Your task to perform on an android device: turn notification dots off Image 0: 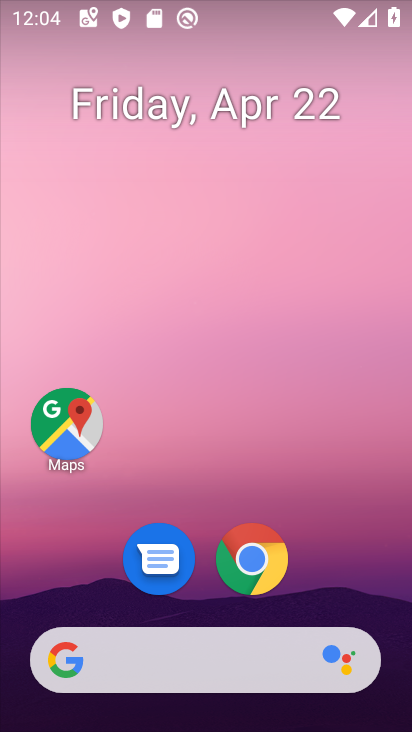
Step 0: drag from (375, 341) to (380, 166)
Your task to perform on an android device: turn notification dots off Image 1: 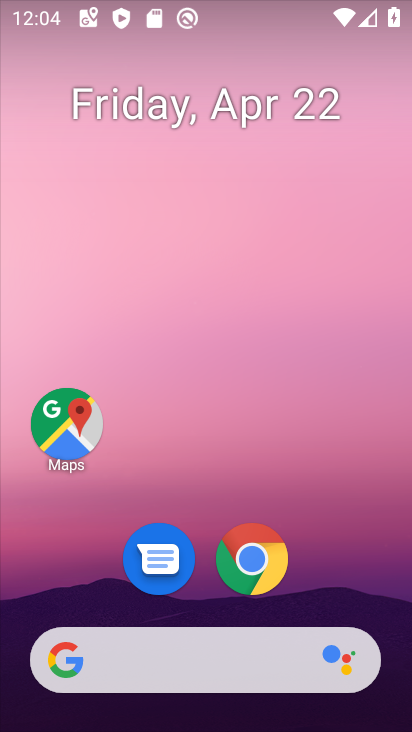
Step 1: drag from (311, 501) to (292, 185)
Your task to perform on an android device: turn notification dots off Image 2: 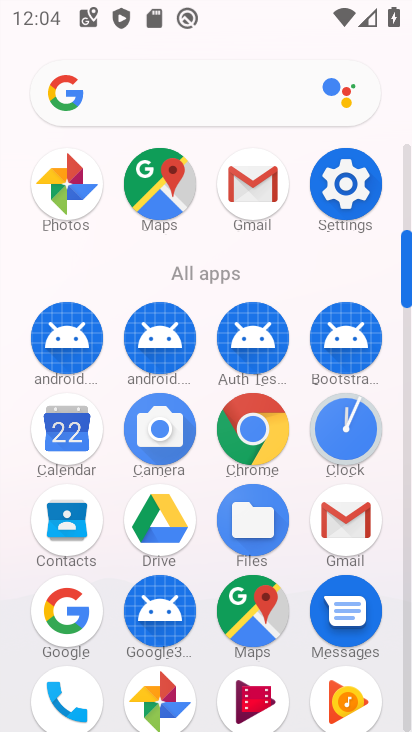
Step 2: click (347, 181)
Your task to perform on an android device: turn notification dots off Image 3: 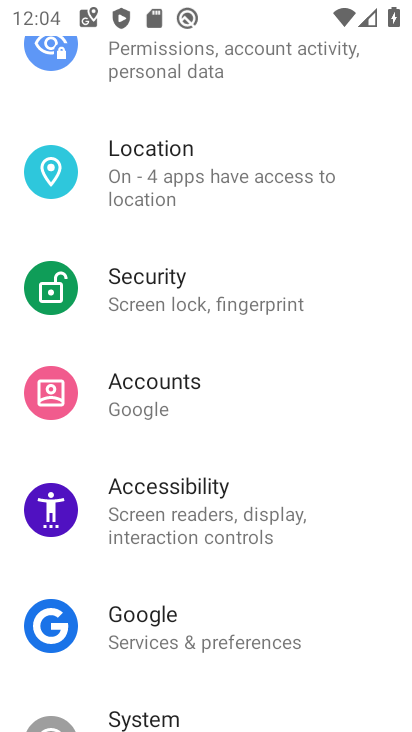
Step 3: drag from (243, 346) to (187, 565)
Your task to perform on an android device: turn notification dots off Image 4: 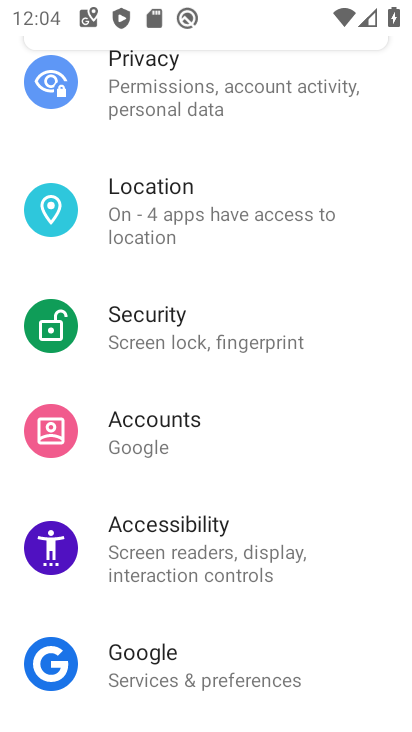
Step 4: drag from (200, 574) to (248, 330)
Your task to perform on an android device: turn notification dots off Image 5: 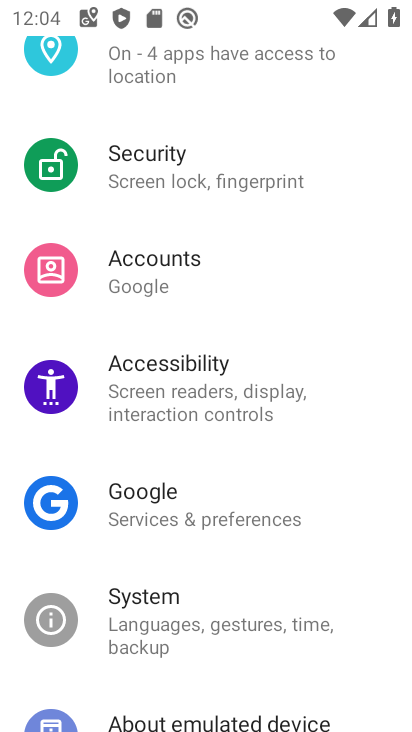
Step 5: drag from (233, 535) to (174, 275)
Your task to perform on an android device: turn notification dots off Image 6: 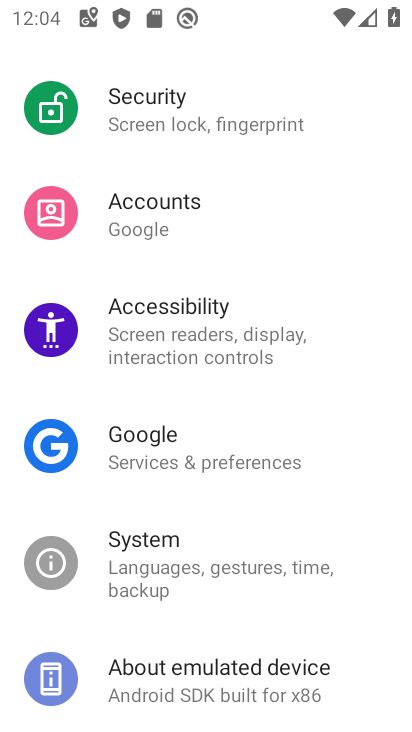
Step 6: drag from (164, 277) to (78, 506)
Your task to perform on an android device: turn notification dots off Image 7: 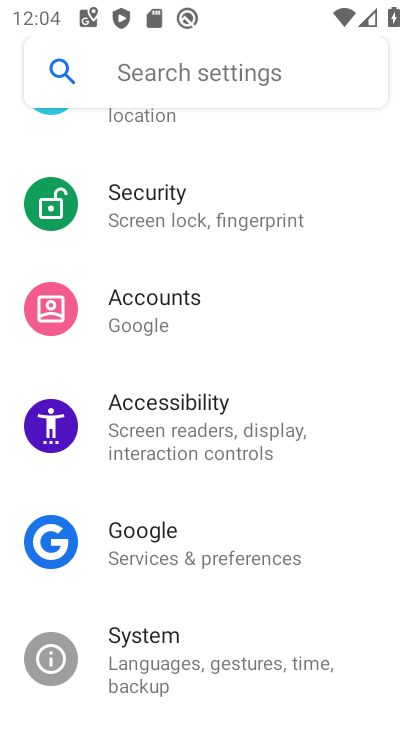
Step 7: drag from (170, 418) to (117, 547)
Your task to perform on an android device: turn notification dots off Image 8: 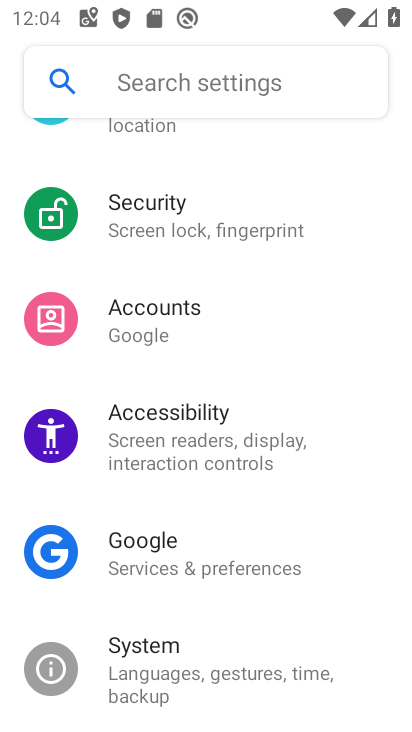
Step 8: drag from (141, 460) to (126, 498)
Your task to perform on an android device: turn notification dots off Image 9: 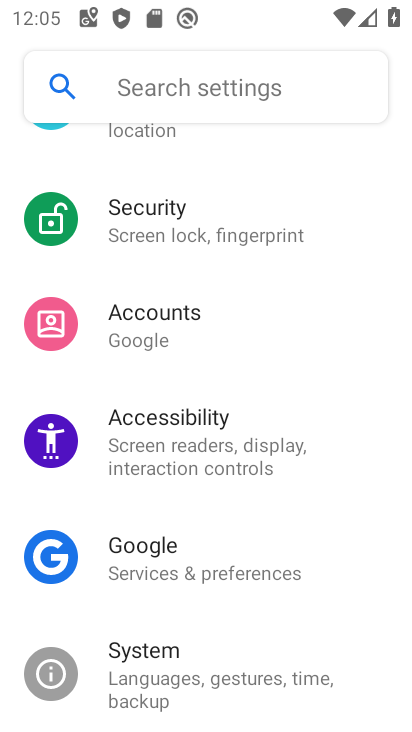
Step 9: drag from (228, 344) to (176, 563)
Your task to perform on an android device: turn notification dots off Image 10: 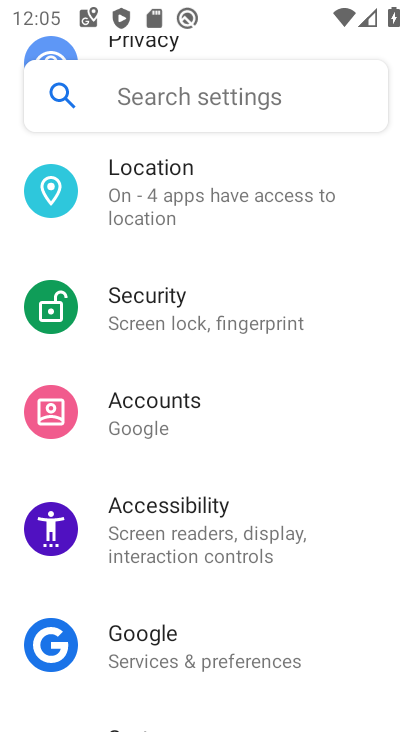
Step 10: drag from (223, 255) to (182, 610)
Your task to perform on an android device: turn notification dots off Image 11: 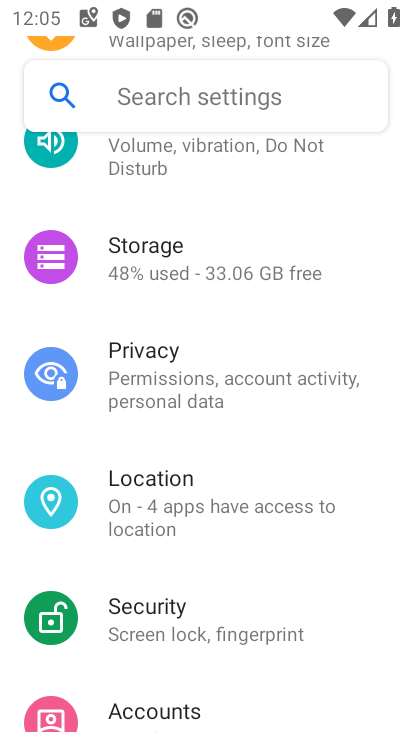
Step 11: drag from (197, 490) to (154, 702)
Your task to perform on an android device: turn notification dots off Image 12: 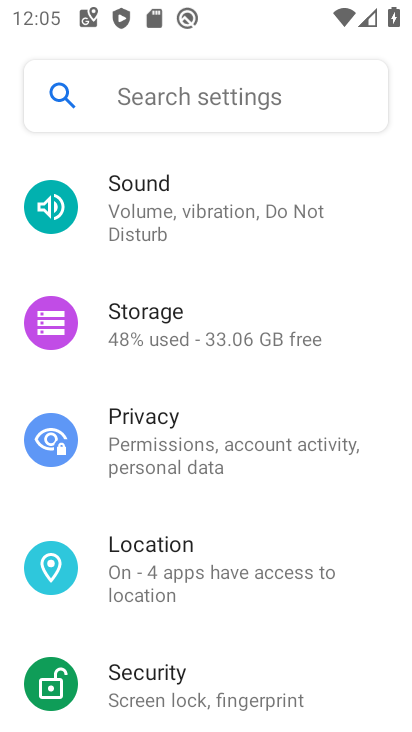
Step 12: drag from (238, 339) to (198, 687)
Your task to perform on an android device: turn notification dots off Image 13: 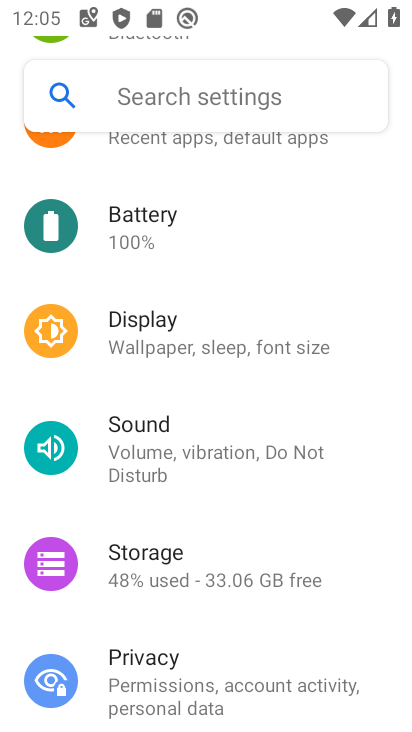
Step 13: drag from (166, 385) to (141, 584)
Your task to perform on an android device: turn notification dots off Image 14: 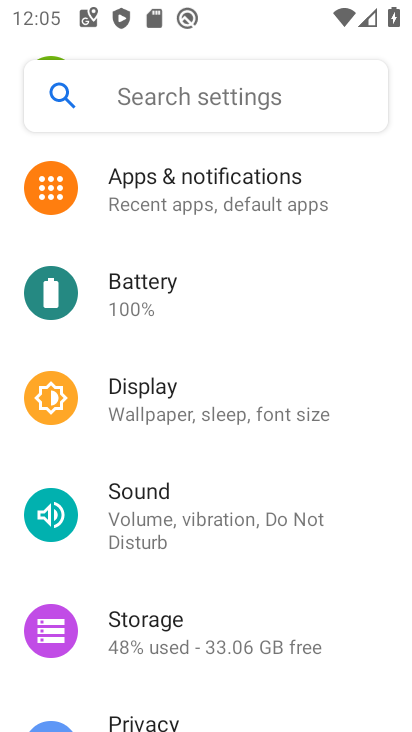
Step 14: click (166, 195)
Your task to perform on an android device: turn notification dots off Image 15: 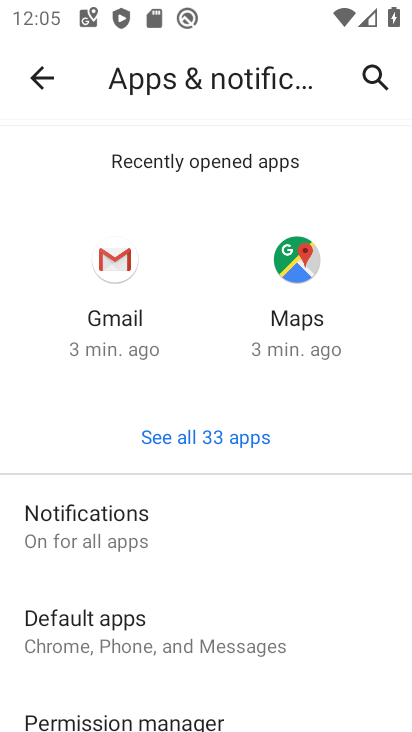
Step 15: click (85, 537)
Your task to perform on an android device: turn notification dots off Image 16: 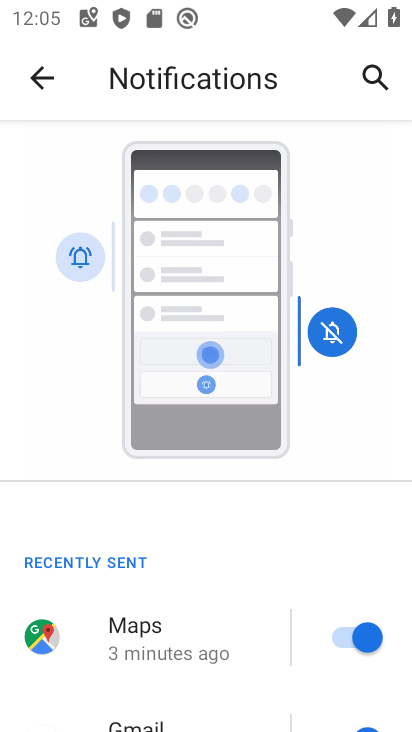
Step 16: drag from (203, 664) to (264, 382)
Your task to perform on an android device: turn notification dots off Image 17: 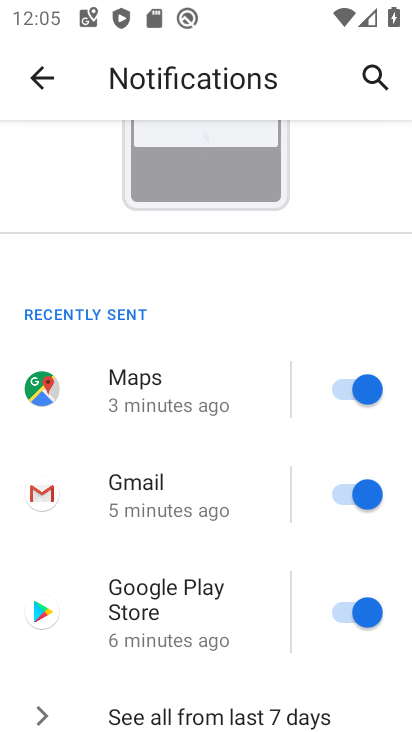
Step 17: drag from (196, 649) to (238, 382)
Your task to perform on an android device: turn notification dots off Image 18: 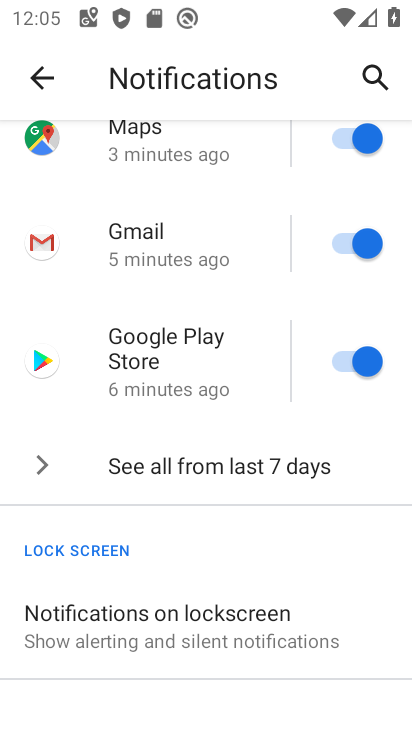
Step 18: drag from (145, 670) to (204, 387)
Your task to perform on an android device: turn notification dots off Image 19: 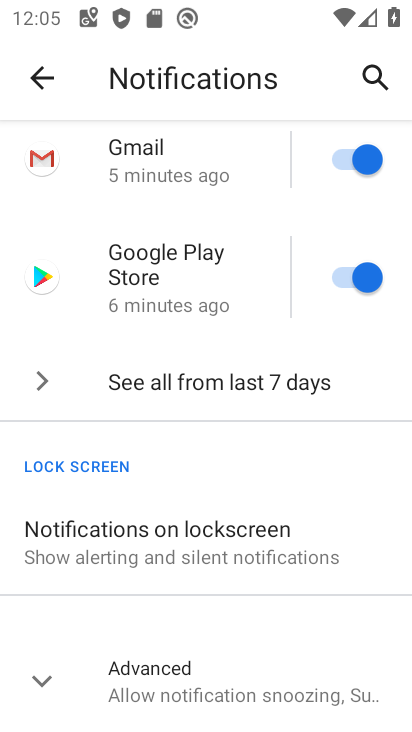
Step 19: drag from (153, 594) to (194, 404)
Your task to perform on an android device: turn notification dots off Image 20: 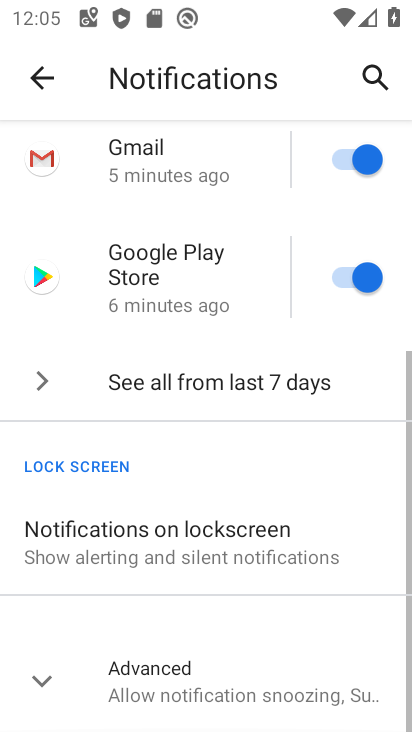
Step 20: click (131, 683)
Your task to perform on an android device: turn notification dots off Image 21: 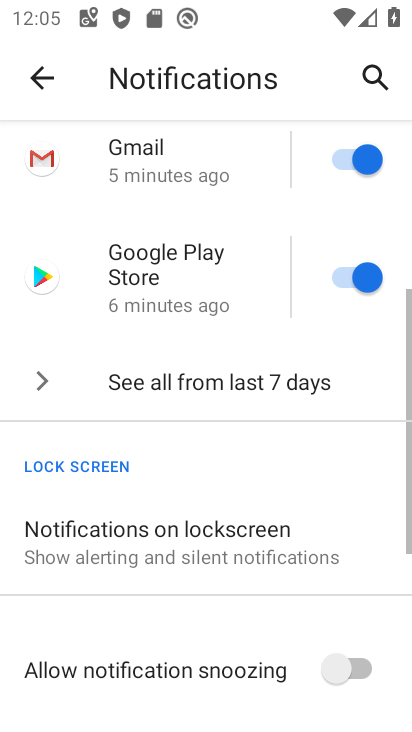
Step 21: drag from (167, 666) to (234, 438)
Your task to perform on an android device: turn notification dots off Image 22: 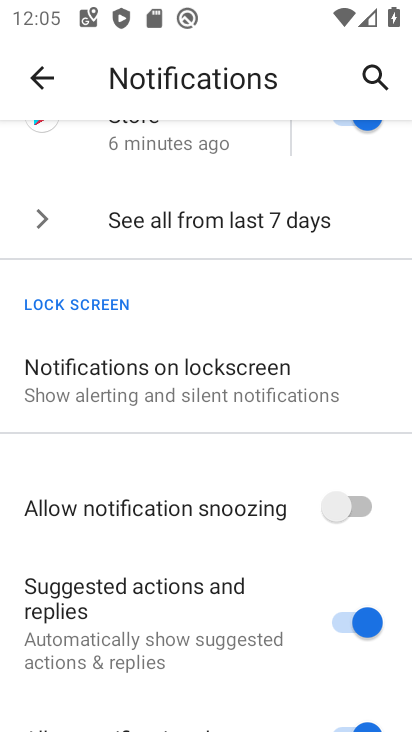
Step 22: drag from (146, 706) to (198, 442)
Your task to perform on an android device: turn notification dots off Image 23: 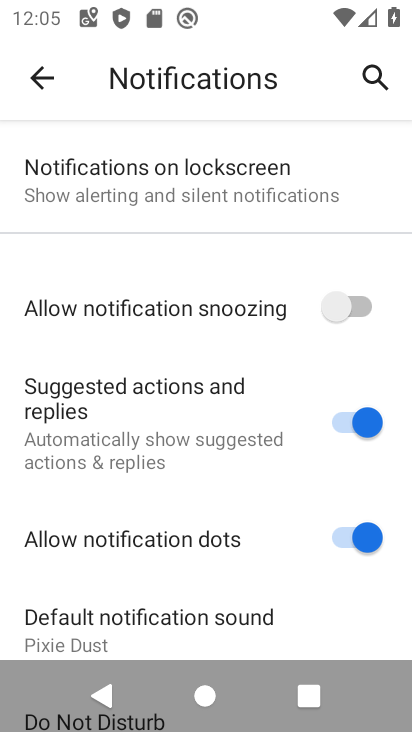
Step 23: drag from (141, 605) to (188, 416)
Your task to perform on an android device: turn notification dots off Image 24: 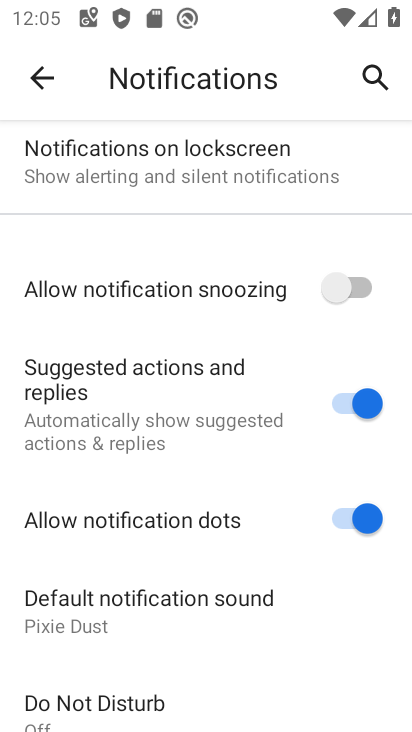
Step 24: click (346, 531)
Your task to perform on an android device: turn notification dots off Image 25: 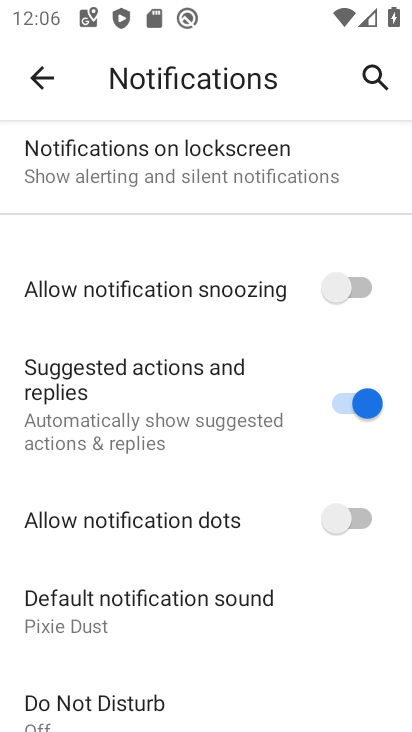
Step 25: task complete